Your task to perform on an android device: Open calendar and show me the third week of next month Image 0: 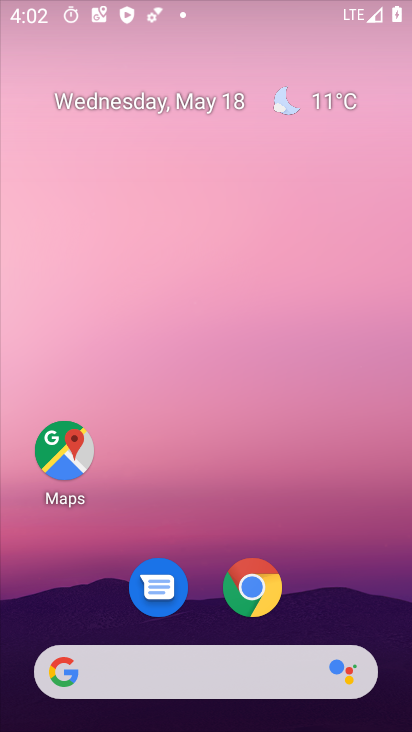
Step 0: drag from (229, 499) to (240, 2)
Your task to perform on an android device: Open calendar and show me the third week of next month Image 1: 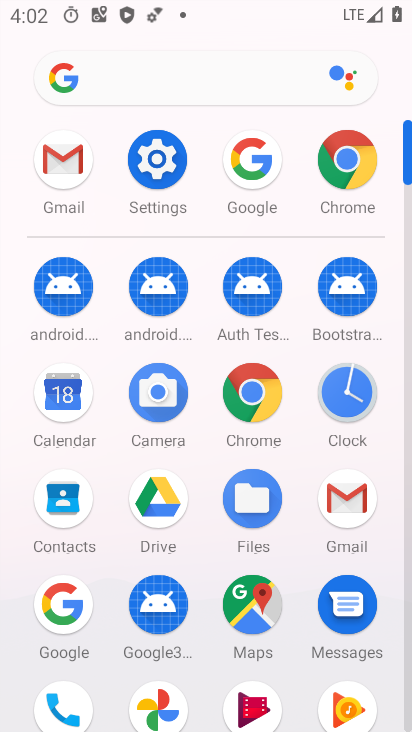
Step 1: click (79, 414)
Your task to perform on an android device: Open calendar and show me the third week of next month Image 2: 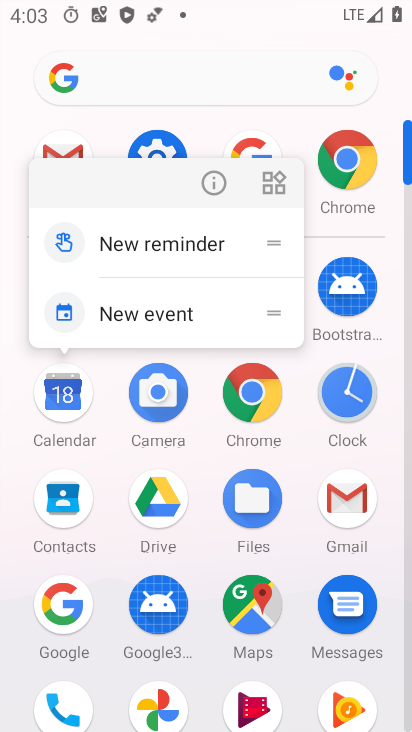
Step 2: click (77, 414)
Your task to perform on an android device: Open calendar and show me the third week of next month Image 3: 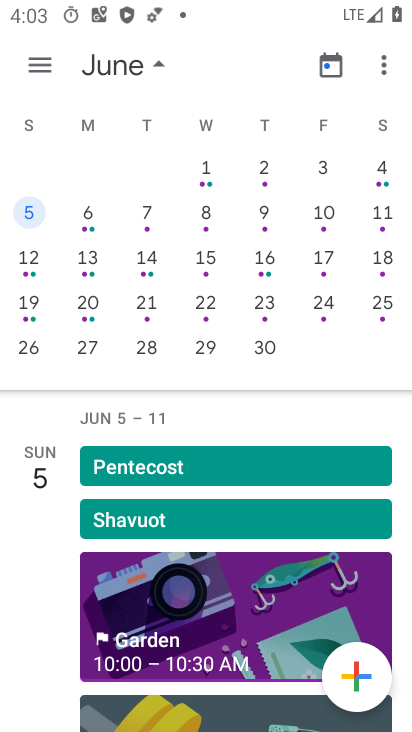
Step 3: click (28, 314)
Your task to perform on an android device: Open calendar and show me the third week of next month Image 4: 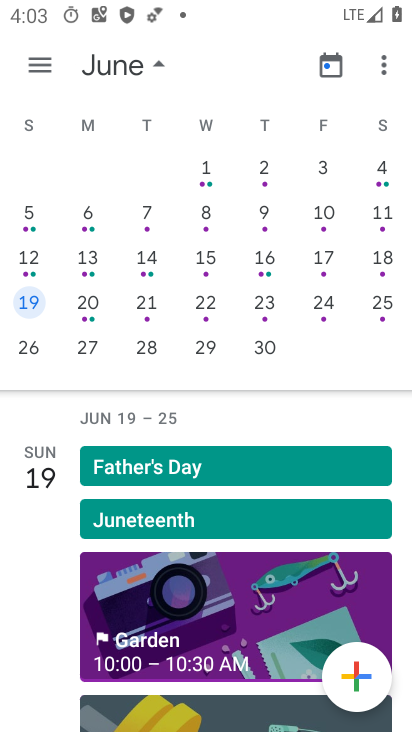
Step 4: task complete